Your task to perform on an android device: snooze an email in the gmail app Image 0: 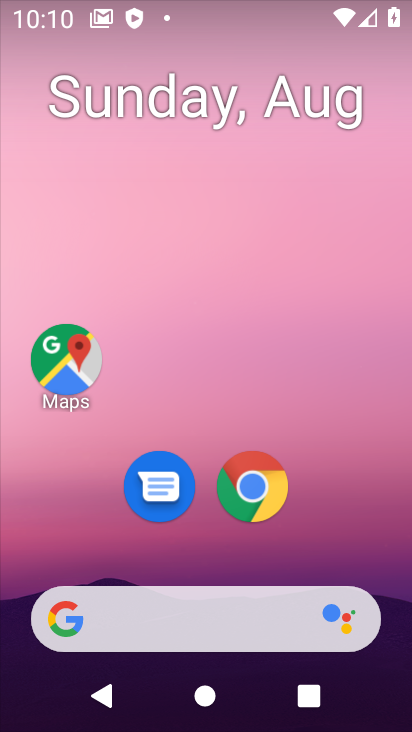
Step 0: drag from (169, 679) to (183, 225)
Your task to perform on an android device: snooze an email in the gmail app Image 1: 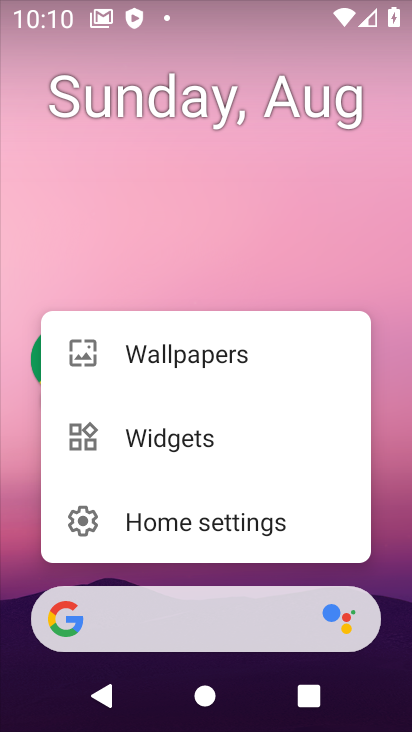
Step 1: click (153, 683)
Your task to perform on an android device: snooze an email in the gmail app Image 2: 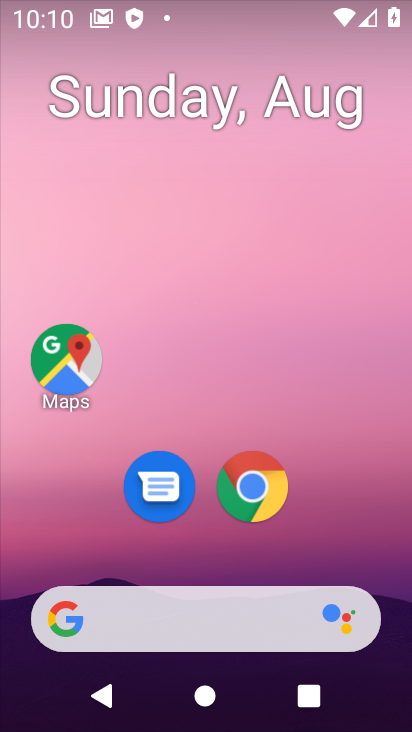
Step 2: drag from (128, 509) to (179, 69)
Your task to perform on an android device: snooze an email in the gmail app Image 3: 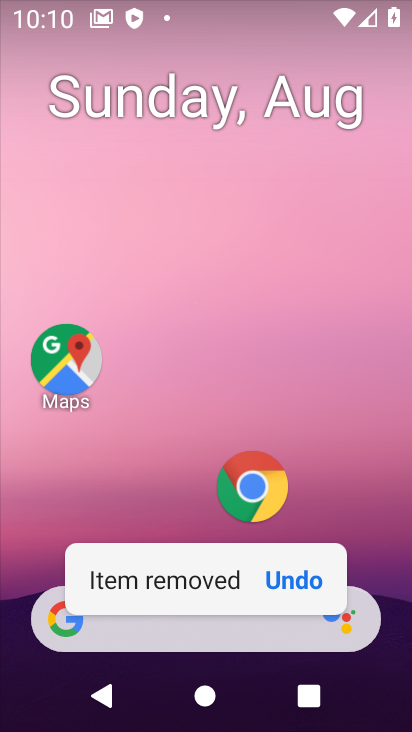
Step 3: drag from (273, 705) to (295, 241)
Your task to perform on an android device: snooze an email in the gmail app Image 4: 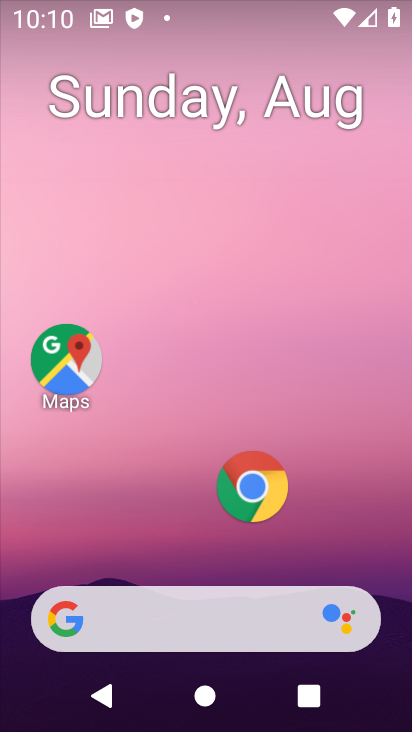
Step 4: click (307, 246)
Your task to perform on an android device: snooze an email in the gmail app Image 5: 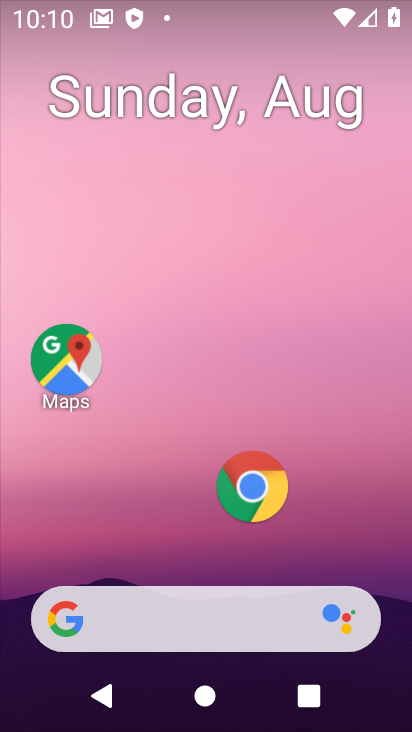
Step 5: drag from (247, 657) to (259, 94)
Your task to perform on an android device: snooze an email in the gmail app Image 6: 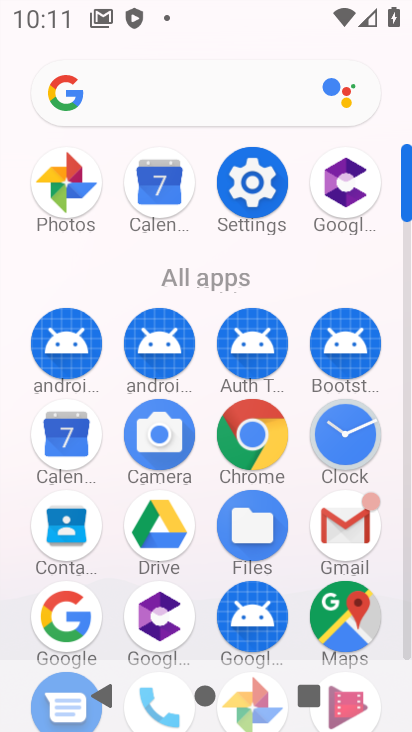
Step 6: click (366, 540)
Your task to perform on an android device: snooze an email in the gmail app Image 7: 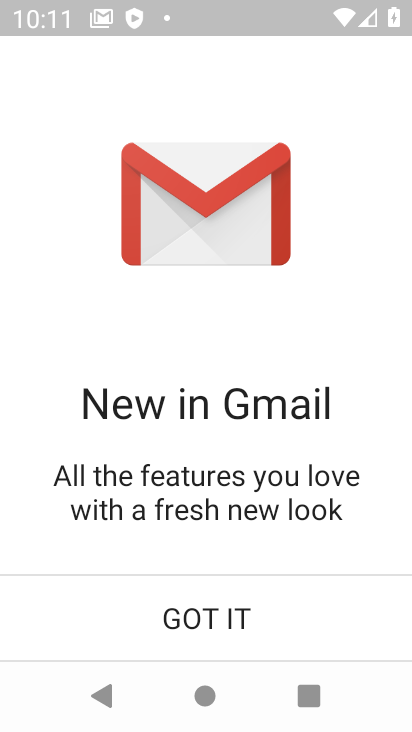
Step 7: click (292, 613)
Your task to perform on an android device: snooze an email in the gmail app Image 8: 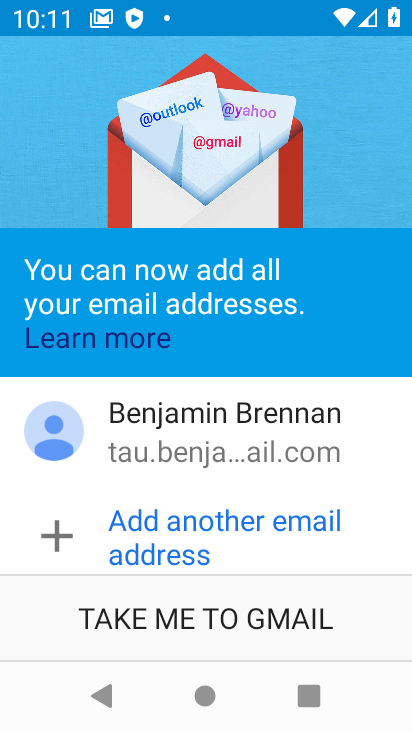
Step 8: click (296, 608)
Your task to perform on an android device: snooze an email in the gmail app Image 9: 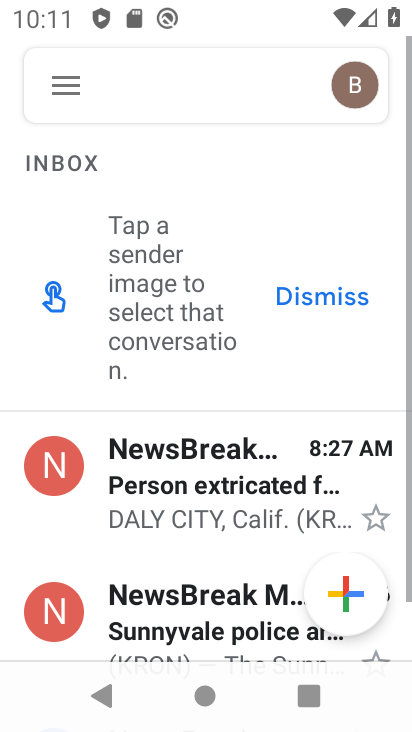
Step 9: click (227, 474)
Your task to perform on an android device: snooze an email in the gmail app Image 10: 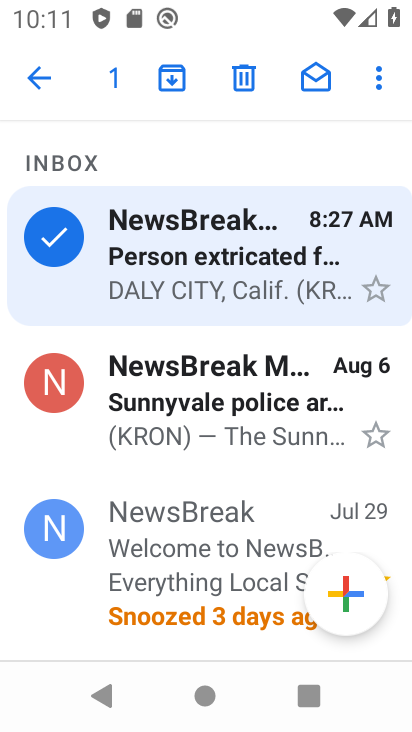
Step 10: click (375, 74)
Your task to perform on an android device: snooze an email in the gmail app Image 11: 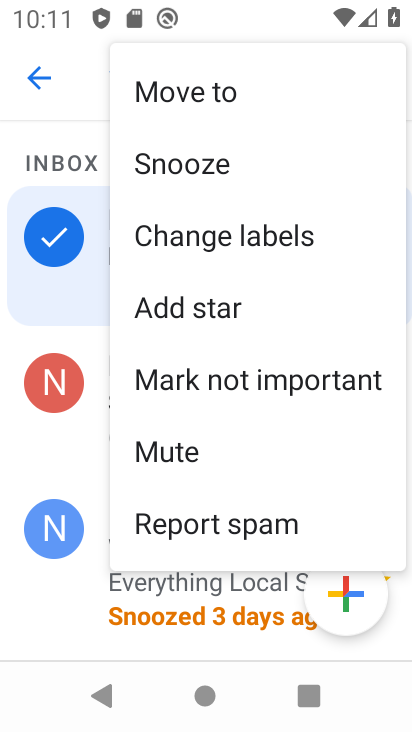
Step 11: click (236, 167)
Your task to perform on an android device: snooze an email in the gmail app Image 12: 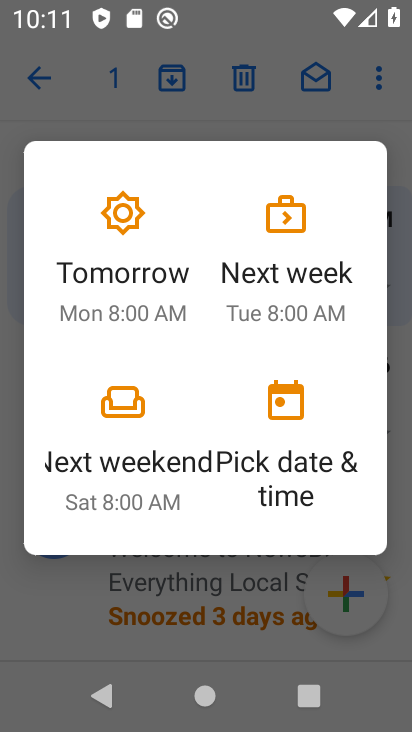
Step 12: click (136, 288)
Your task to perform on an android device: snooze an email in the gmail app Image 13: 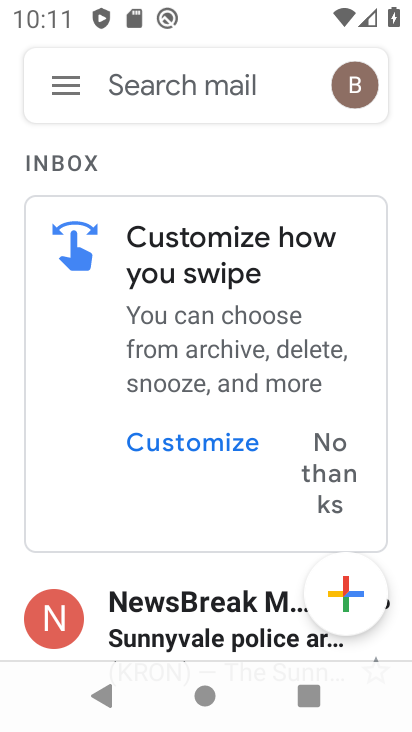
Step 13: task complete